Your task to perform on an android device: Go to Maps Image 0: 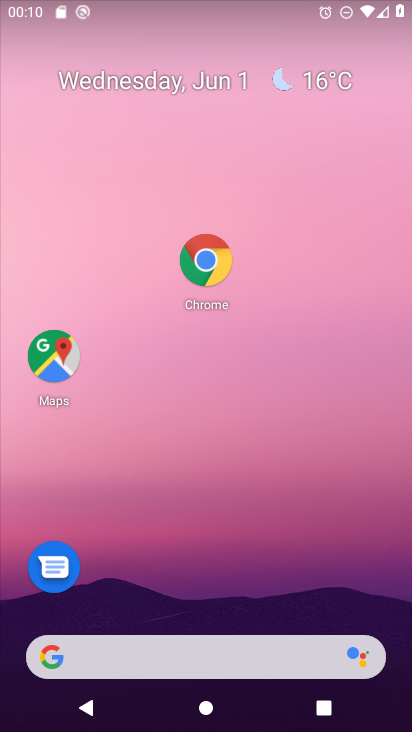
Step 0: drag from (146, 596) to (210, 206)
Your task to perform on an android device: Go to Maps Image 1: 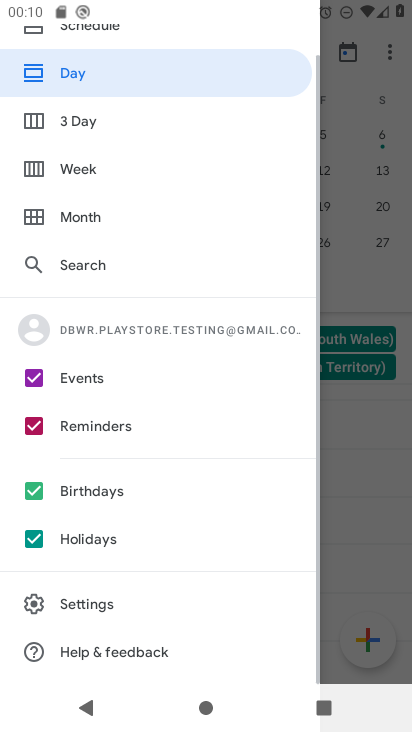
Step 1: press home button
Your task to perform on an android device: Go to Maps Image 2: 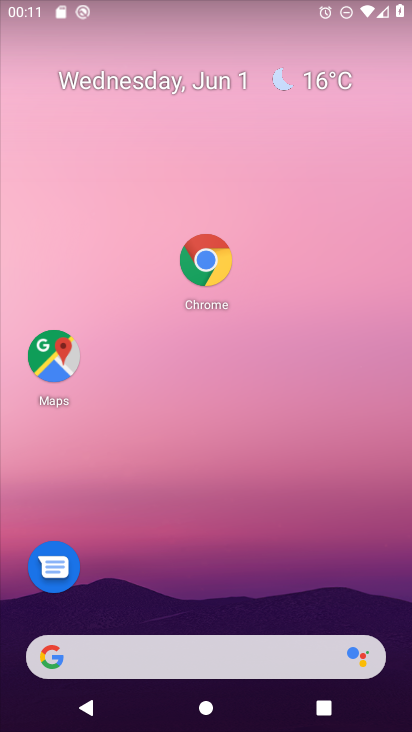
Step 2: click (40, 360)
Your task to perform on an android device: Go to Maps Image 3: 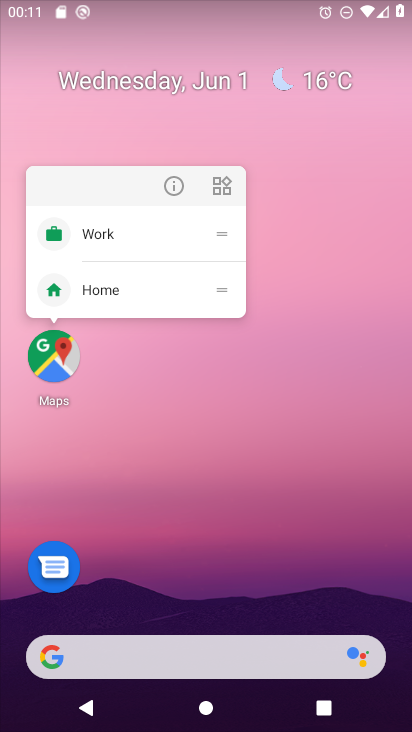
Step 3: click (63, 361)
Your task to perform on an android device: Go to Maps Image 4: 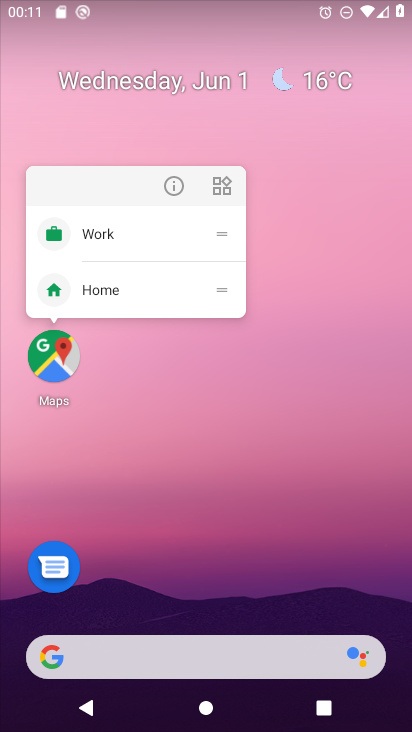
Step 4: click (54, 357)
Your task to perform on an android device: Go to Maps Image 5: 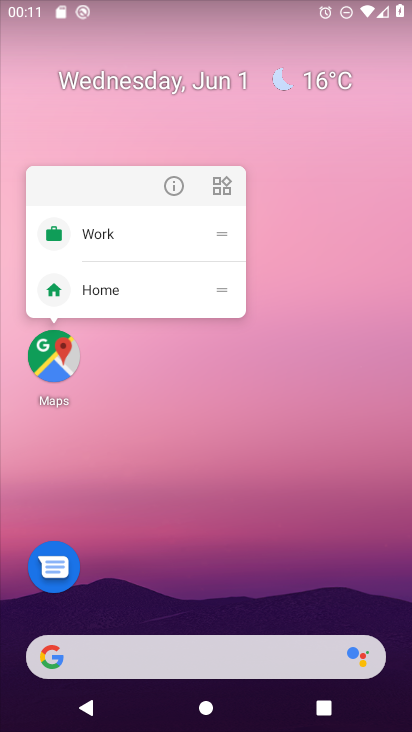
Step 5: click (47, 371)
Your task to perform on an android device: Go to Maps Image 6: 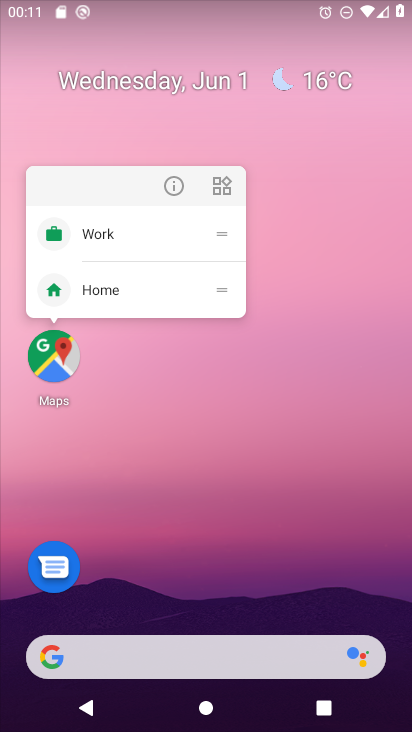
Step 6: click (52, 342)
Your task to perform on an android device: Go to Maps Image 7: 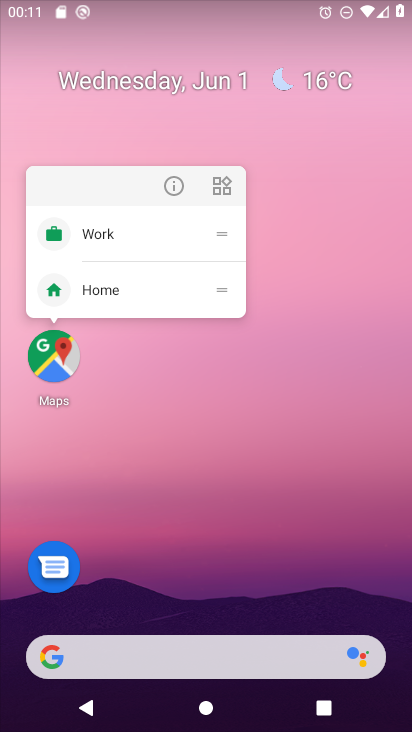
Step 7: click (51, 359)
Your task to perform on an android device: Go to Maps Image 8: 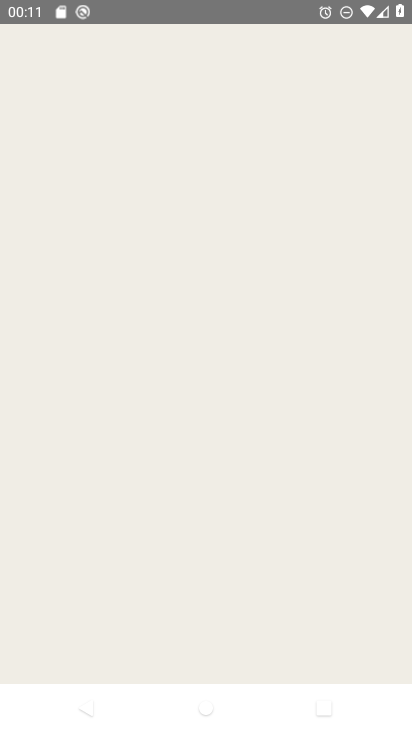
Step 8: task complete